Your task to perform on an android device: Go to battery settings Image 0: 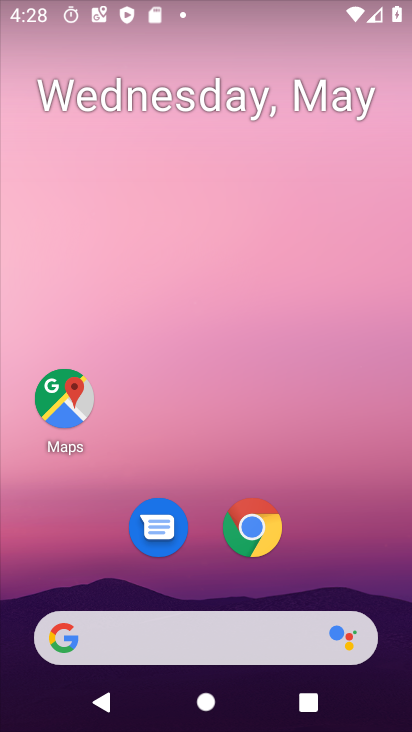
Step 0: drag from (302, 571) to (299, 151)
Your task to perform on an android device: Go to battery settings Image 1: 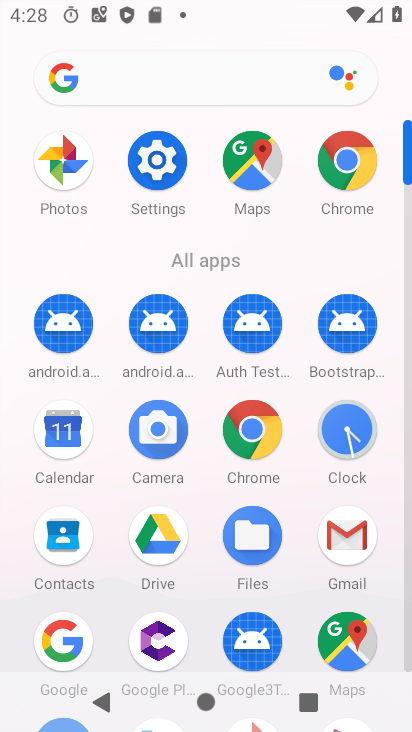
Step 1: click (164, 165)
Your task to perform on an android device: Go to battery settings Image 2: 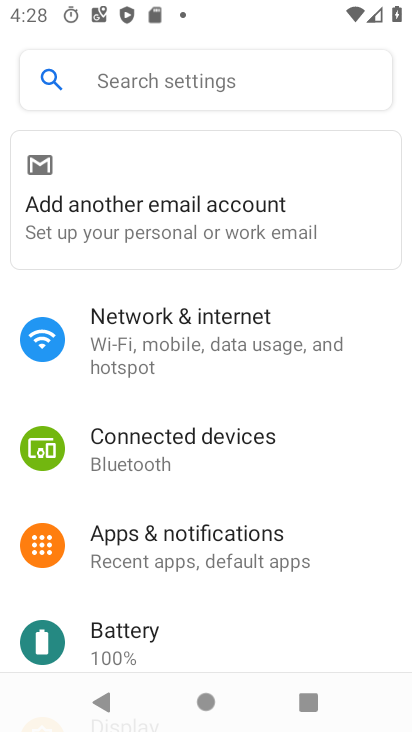
Step 2: click (119, 629)
Your task to perform on an android device: Go to battery settings Image 3: 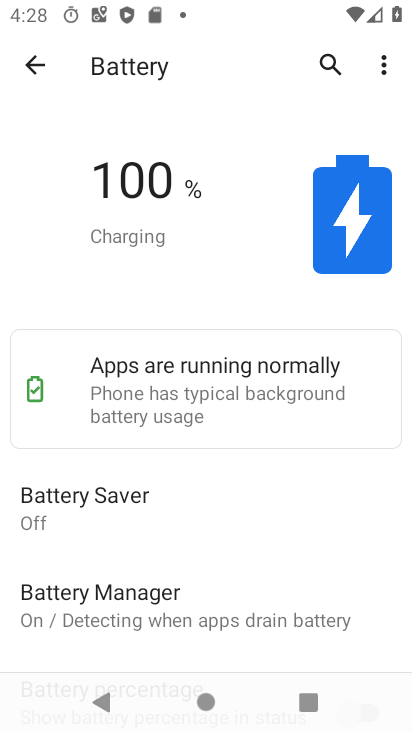
Step 3: task complete